Your task to perform on an android device: open the mobile data screen to see how much data has been used Image 0: 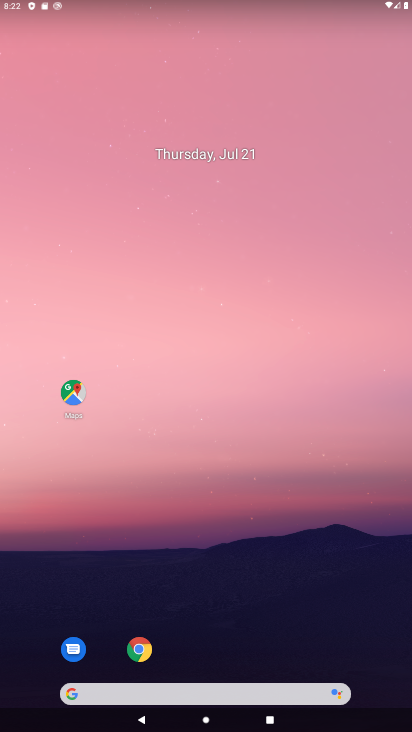
Step 0: drag from (186, 6) to (201, 514)
Your task to perform on an android device: open the mobile data screen to see how much data has been used Image 1: 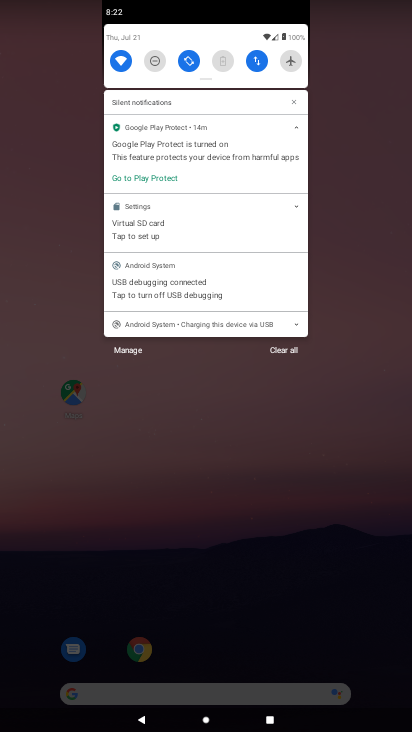
Step 1: click (259, 57)
Your task to perform on an android device: open the mobile data screen to see how much data has been used Image 2: 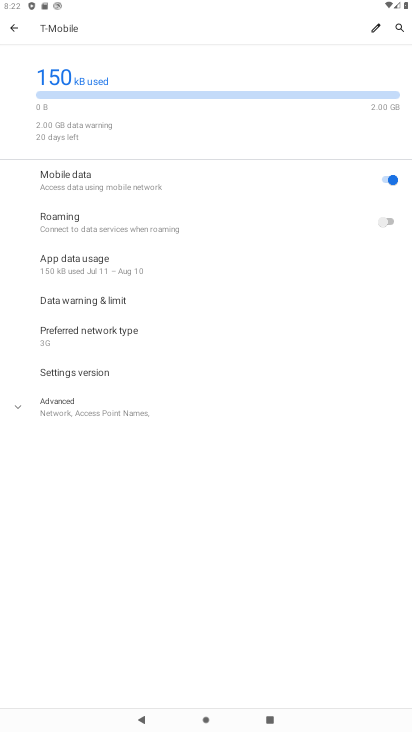
Step 2: task complete